Your task to perform on an android device: Do I have any events this weekend? Image 0: 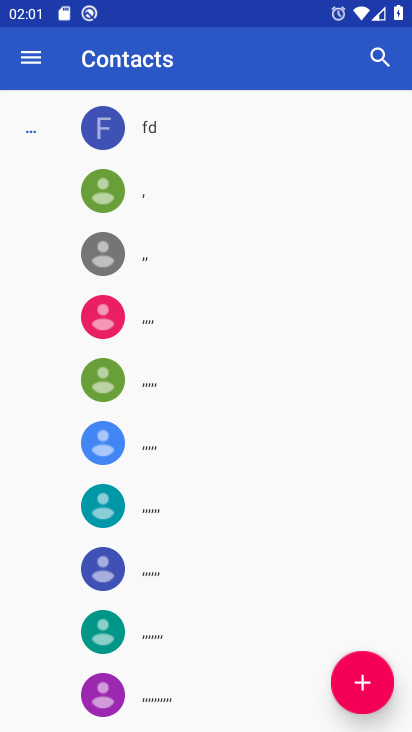
Step 0: press home button
Your task to perform on an android device: Do I have any events this weekend? Image 1: 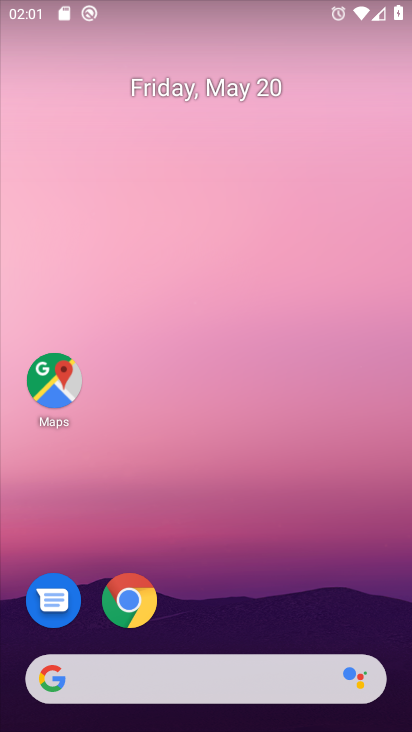
Step 1: drag from (221, 610) to (258, 126)
Your task to perform on an android device: Do I have any events this weekend? Image 2: 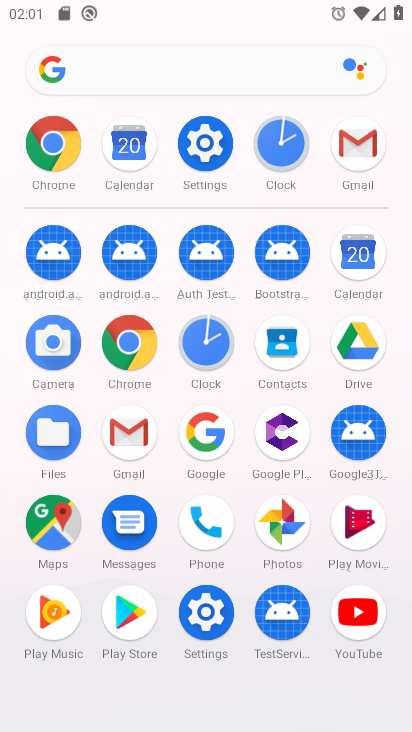
Step 2: click (358, 258)
Your task to perform on an android device: Do I have any events this weekend? Image 3: 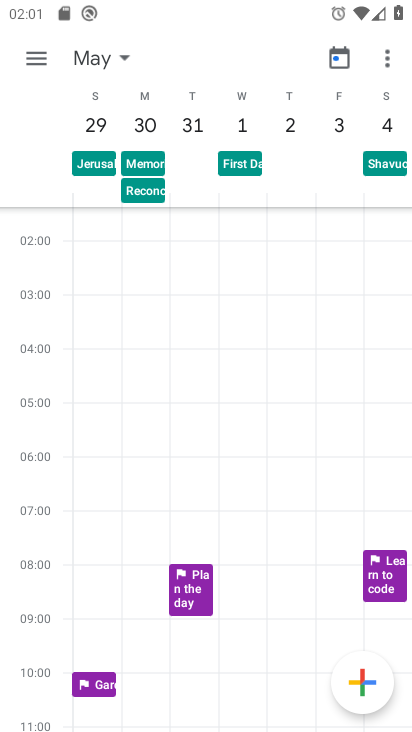
Step 3: drag from (152, 172) to (374, 146)
Your task to perform on an android device: Do I have any events this weekend? Image 4: 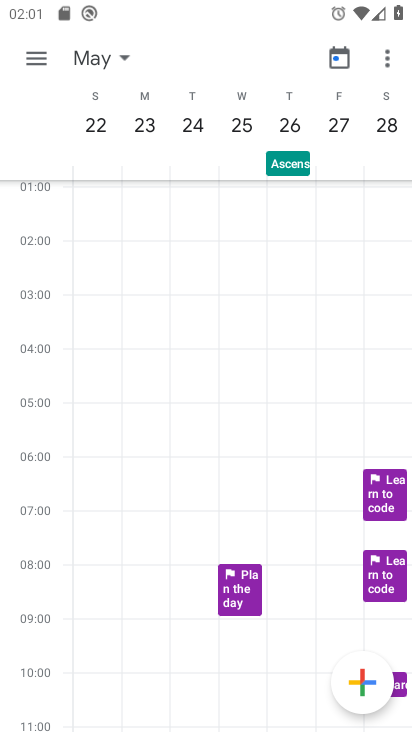
Step 4: drag from (125, 147) to (402, 161)
Your task to perform on an android device: Do I have any events this weekend? Image 5: 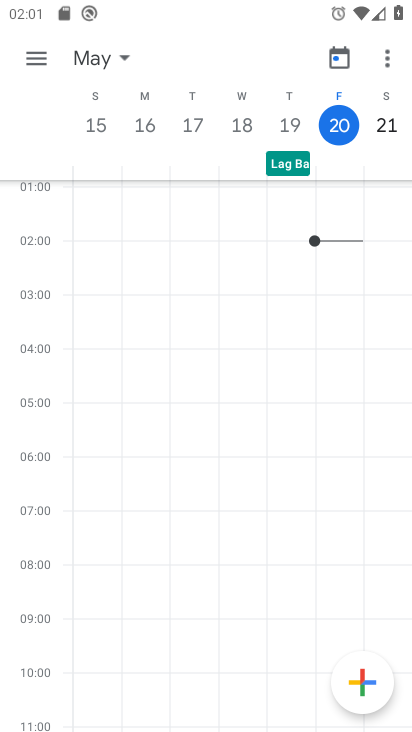
Step 5: click (26, 53)
Your task to perform on an android device: Do I have any events this weekend? Image 6: 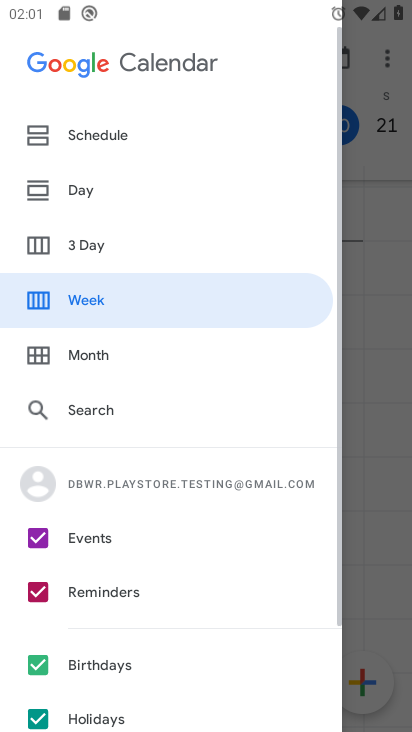
Step 6: drag from (79, 491) to (95, 425)
Your task to perform on an android device: Do I have any events this weekend? Image 7: 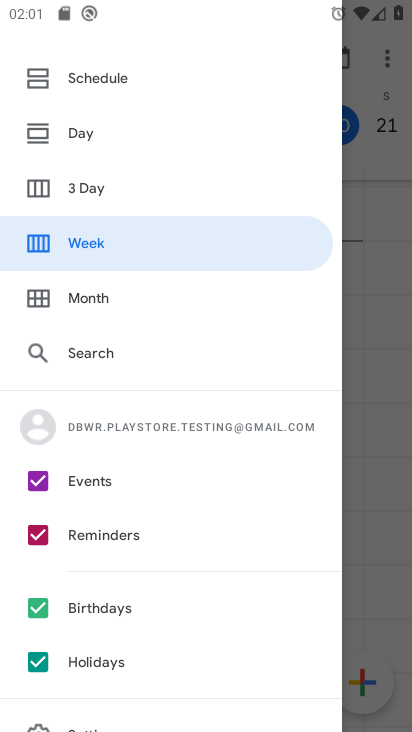
Step 7: click (37, 524)
Your task to perform on an android device: Do I have any events this weekend? Image 8: 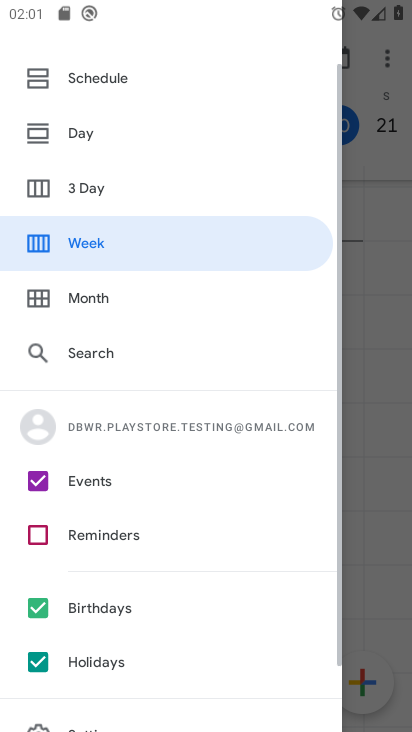
Step 8: click (39, 611)
Your task to perform on an android device: Do I have any events this weekend? Image 9: 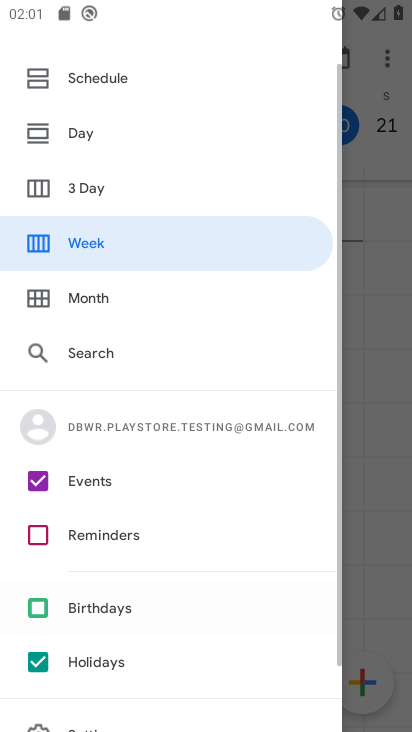
Step 9: click (43, 661)
Your task to perform on an android device: Do I have any events this weekend? Image 10: 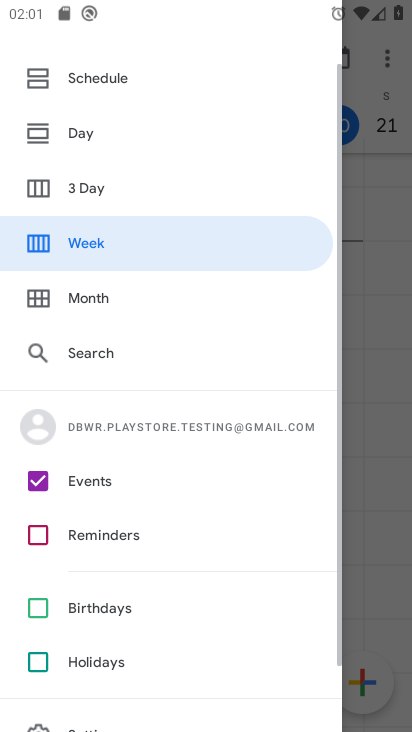
Step 10: click (114, 239)
Your task to perform on an android device: Do I have any events this weekend? Image 11: 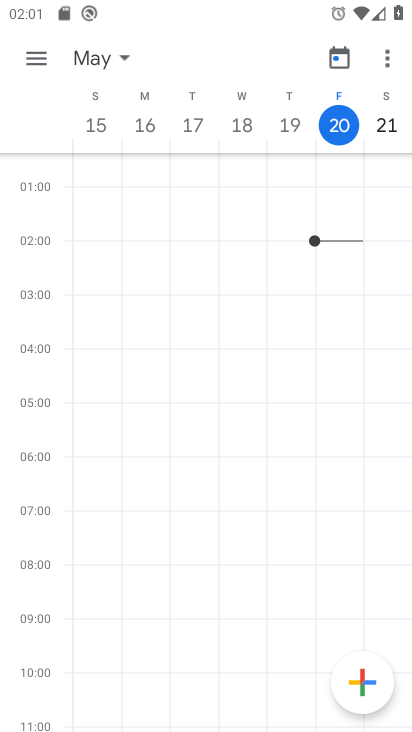
Step 11: task complete